Your task to perform on an android device: Go to display settings Image 0: 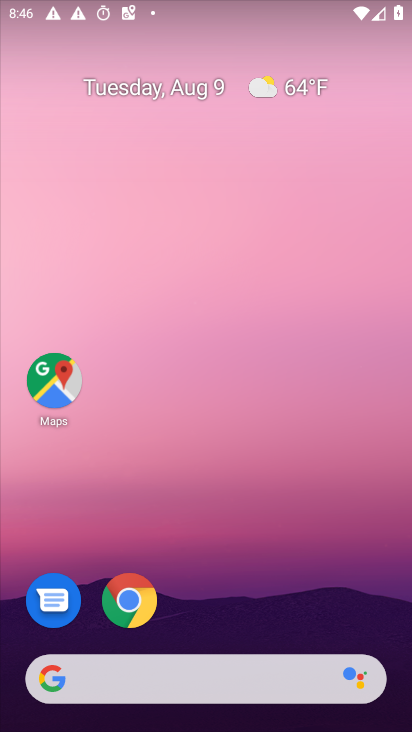
Step 0: press home button
Your task to perform on an android device: Go to display settings Image 1: 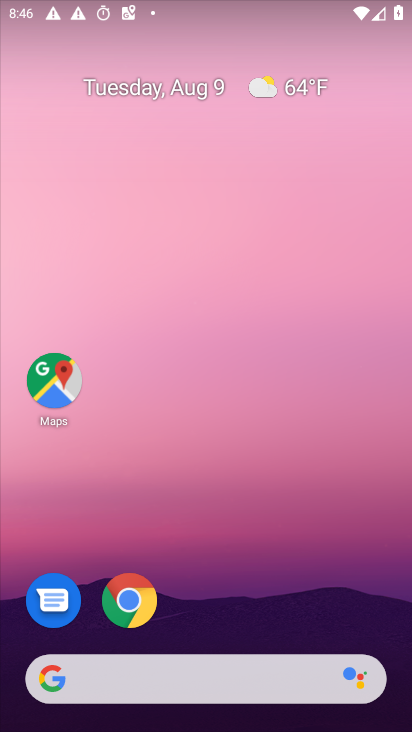
Step 1: drag from (247, 618) to (252, 111)
Your task to perform on an android device: Go to display settings Image 2: 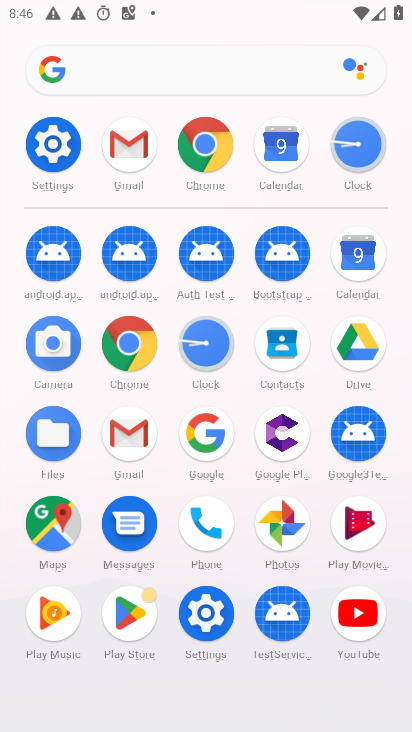
Step 2: click (50, 142)
Your task to perform on an android device: Go to display settings Image 3: 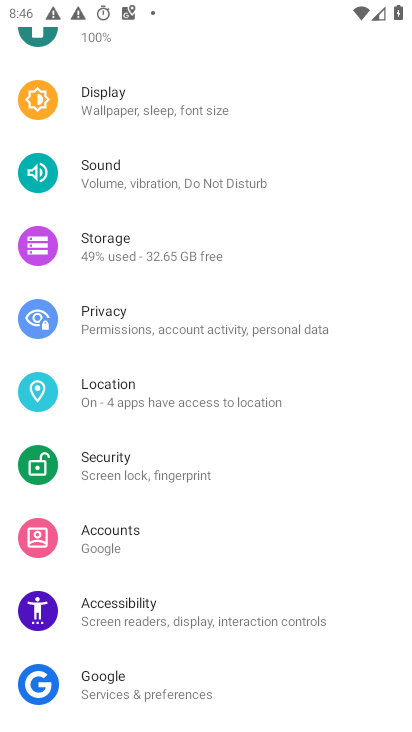
Step 3: click (110, 105)
Your task to perform on an android device: Go to display settings Image 4: 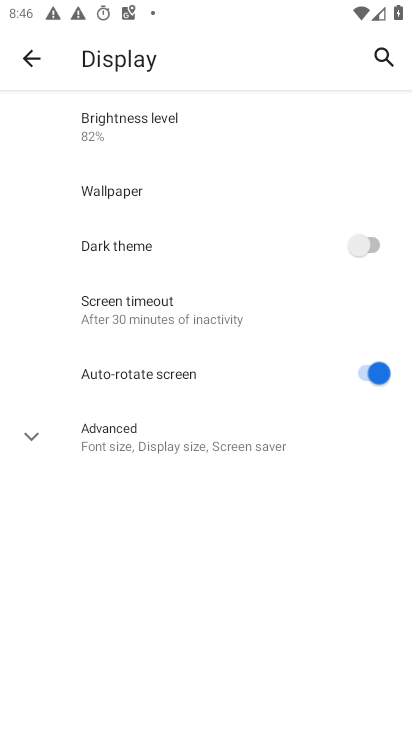
Step 4: task complete